Your task to perform on an android device: Go to eBay Image 0: 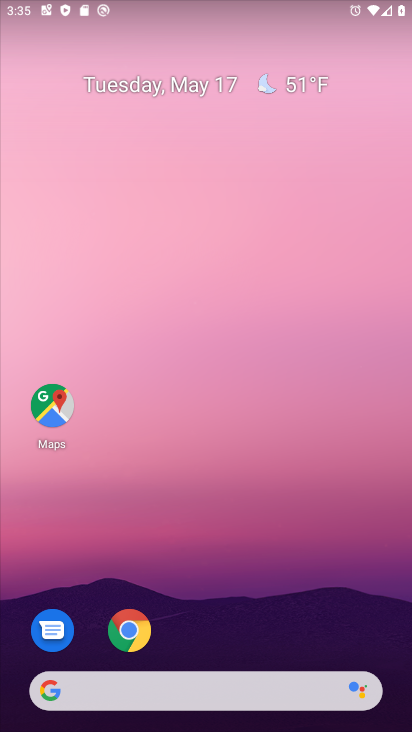
Step 0: click (132, 625)
Your task to perform on an android device: Go to eBay Image 1: 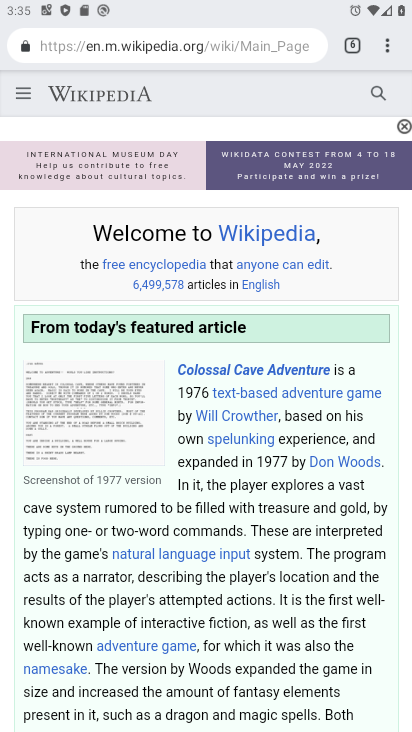
Step 1: click (356, 38)
Your task to perform on an android device: Go to eBay Image 2: 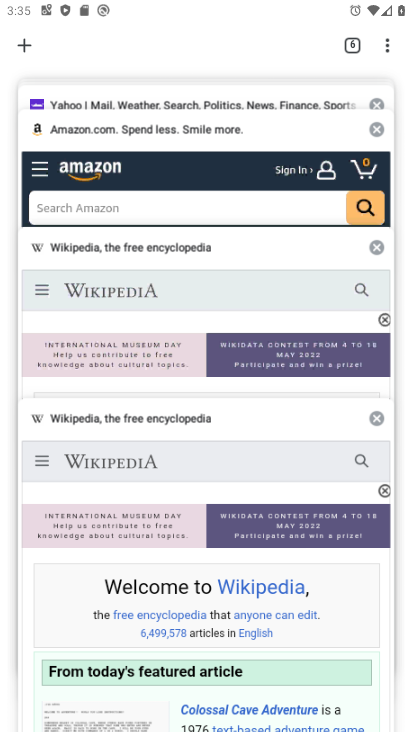
Step 2: click (22, 41)
Your task to perform on an android device: Go to eBay Image 3: 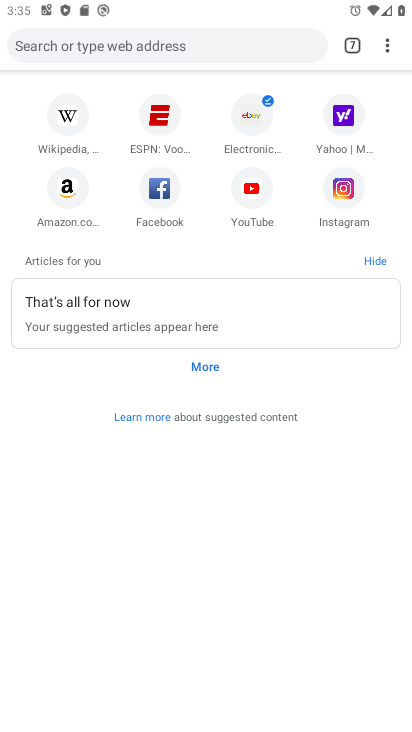
Step 3: click (246, 122)
Your task to perform on an android device: Go to eBay Image 4: 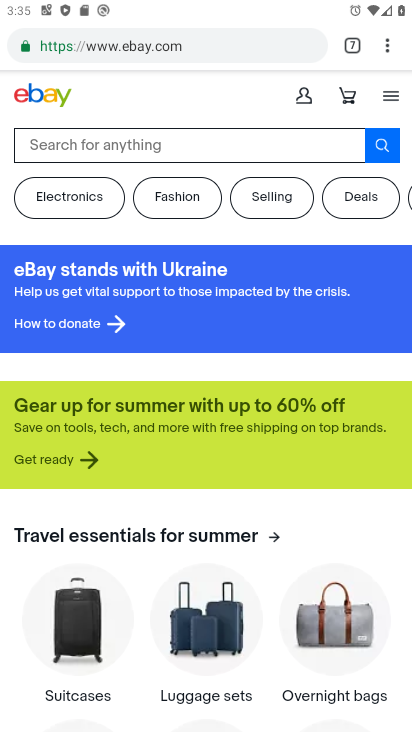
Step 4: task complete